Your task to perform on an android device: turn notification dots off Image 0: 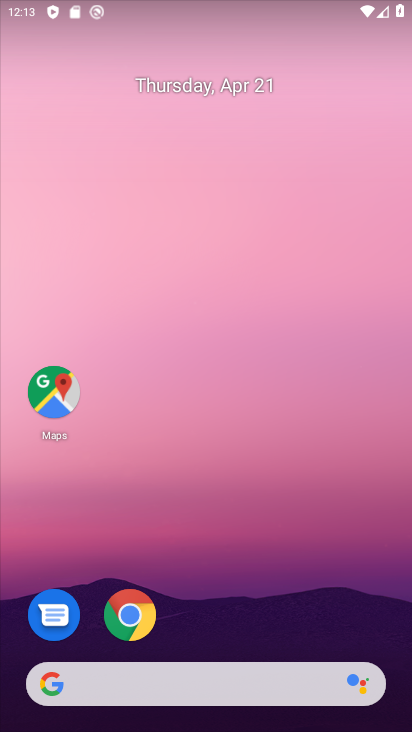
Step 0: drag from (191, 624) to (226, 76)
Your task to perform on an android device: turn notification dots off Image 1: 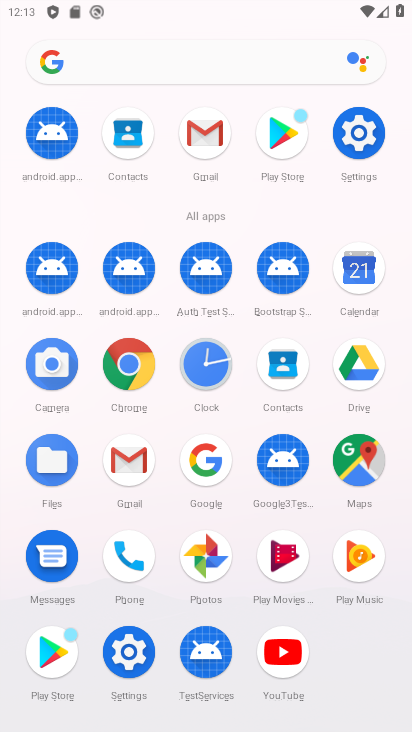
Step 1: click (347, 139)
Your task to perform on an android device: turn notification dots off Image 2: 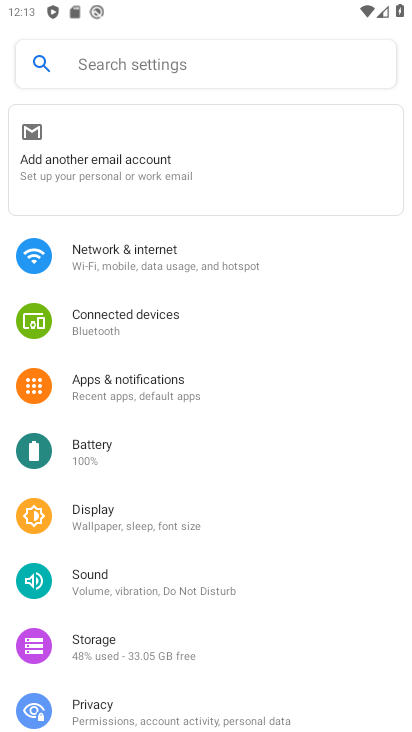
Step 2: click (154, 389)
Your task to perform on an android device: turn notification dots off Image 3: 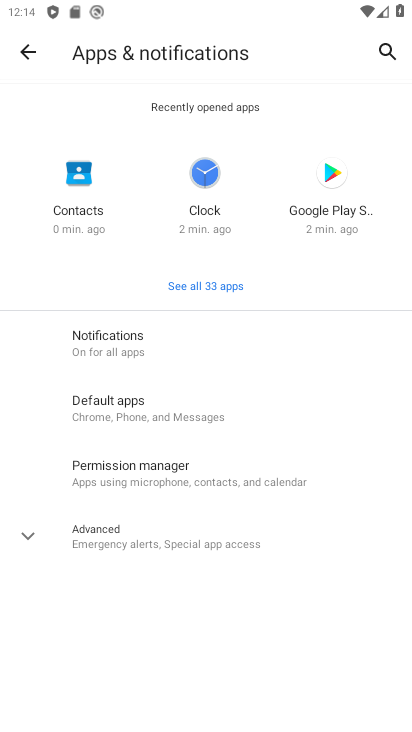
Step 3: click (162, 352)
Your task to perform on an android device: turn notification dots off Image 4: 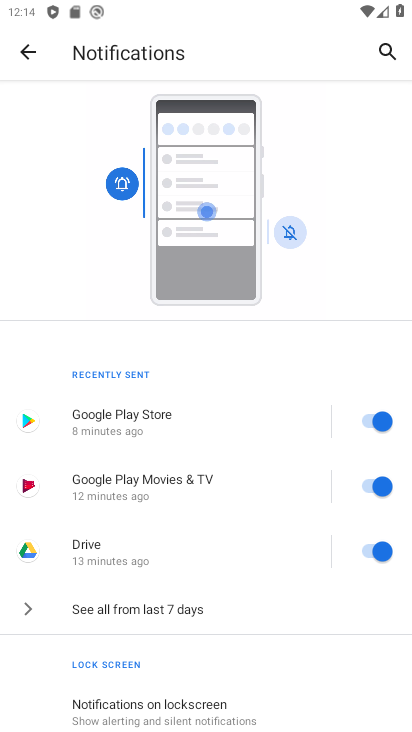
Step 4: drag from (167, 642) to (193, 143)
Your task to perform on an android device: turn notification dots off Image 5: 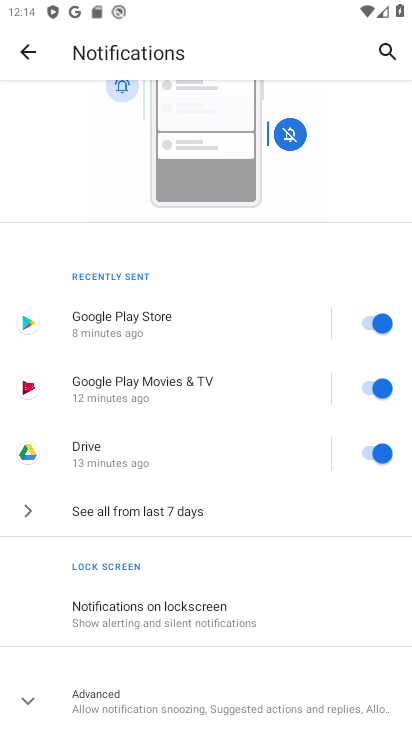
Step 5: click (157, 703)
Your task to perform on an android device: turn notification dots off Image 6: 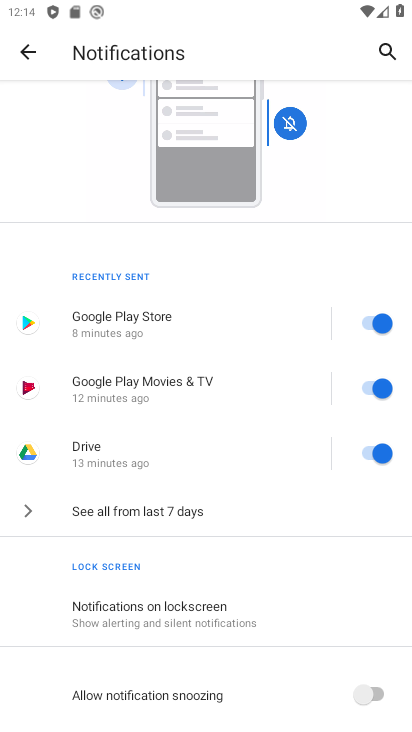
Step 6: drag from (209, 460) to (211, 215)
Your task to perform on an android device: turn notification dots off Image 7: 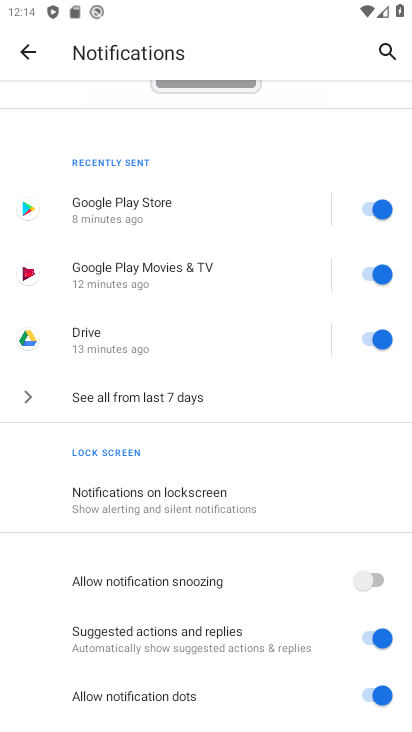
Step 7: click (370, 698)
Your task to perform on an android device: turn notification dots off Image 8: 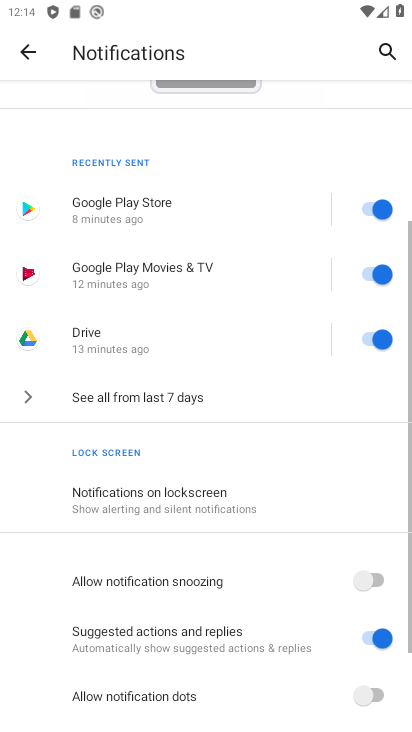
Step 8: task complete